Your task to perform on an android device: turn on airplane mode Image 0: 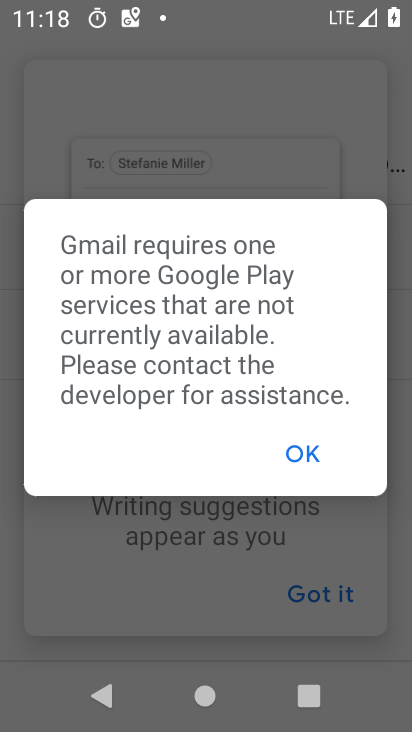
Step 0: press home button
Your task to perform on an android device: turn on airplane mode Image 1: 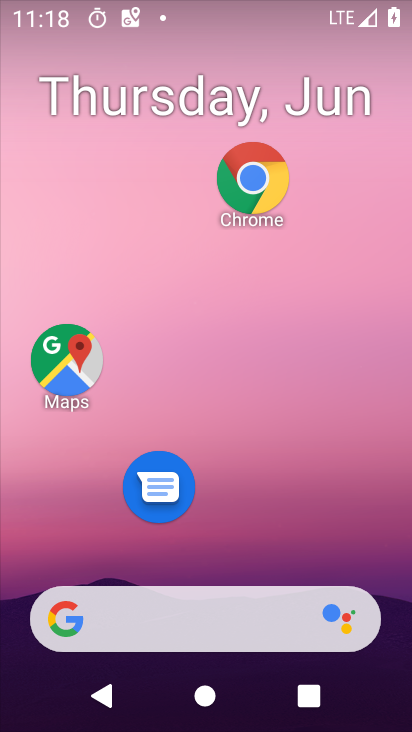
Step 1: drag from (234, 729) to (234, 54)
Your task to perform on an android device: turn on airplane mode Image 2: 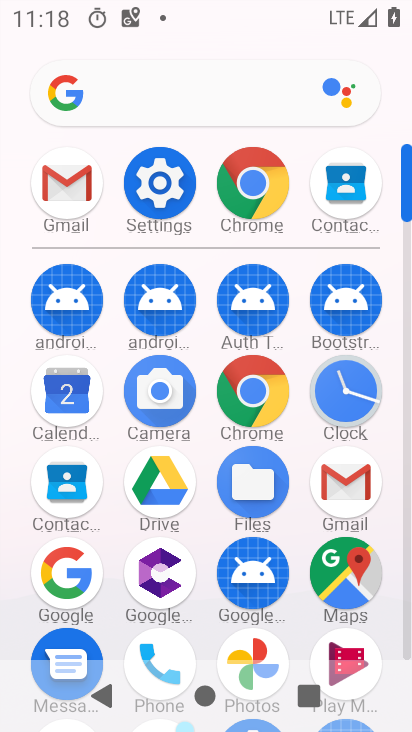
Step 2: click (160, 183)
Your task to perform on an android device: turn on airplane mode Image 3: 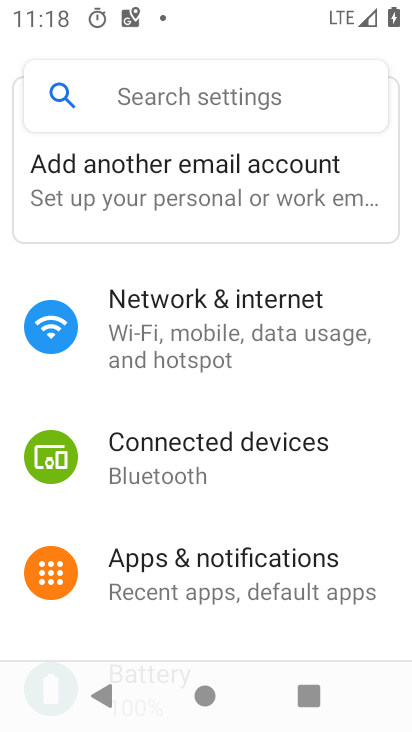
Step 3: click (201, 339)
Your task to perform on an android device: turn on airplane mode Image 4: 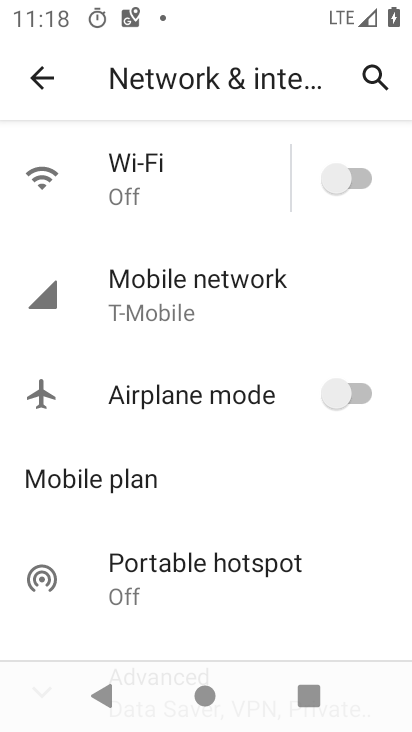
Step 4: drag from (359, 393) to (385, 435)
Your task to perform on an android device: turn on airplane mode Image 5: 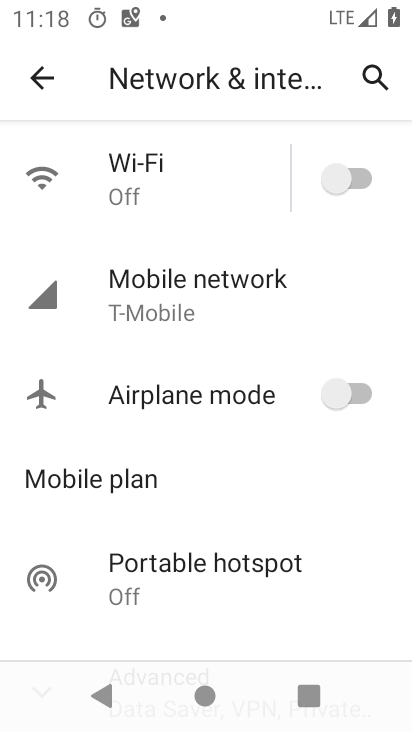
Step 5: click (361, 393)
Your task to perform on an android device: turn on airplane mode Image 6: 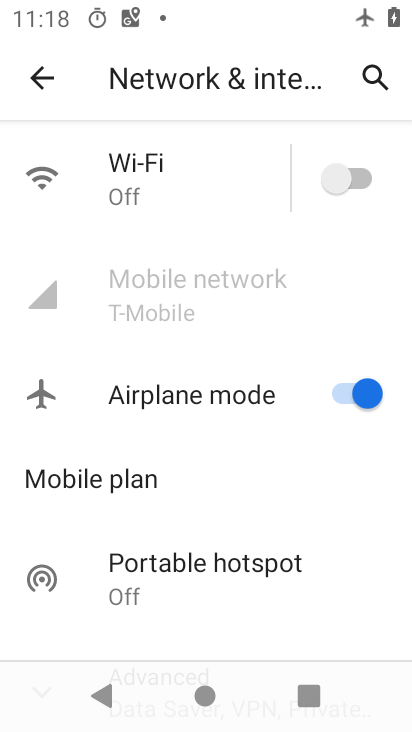
Step 6: task complete